Your task to perform on an android device: Open the phone app and click the voicemail tab. Image 0: 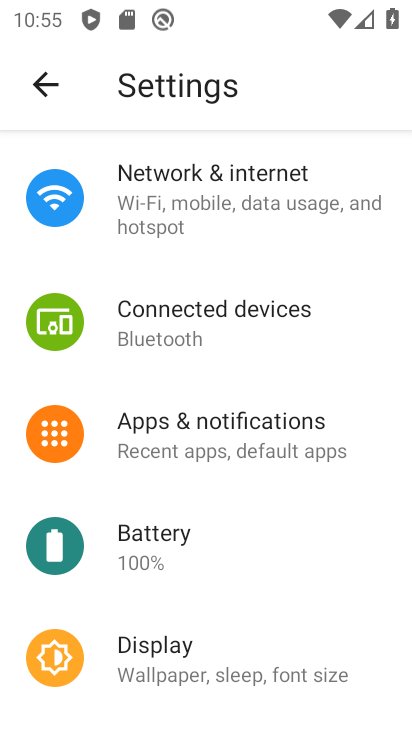
Step 0: press home button
Your task to perform on an android device: Open the phone app and click the voicemail tab. Image 1: 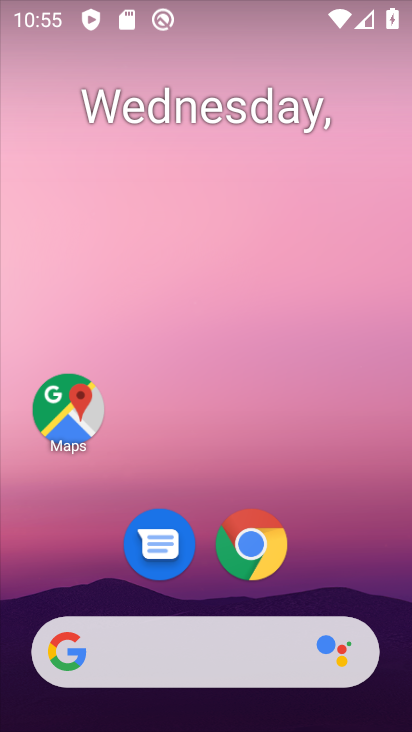
Step 1: drag from (248, 605) to (313, 62)
Your task to perform on an android device: Open the phone app and click the voicemail tab. Image 2: 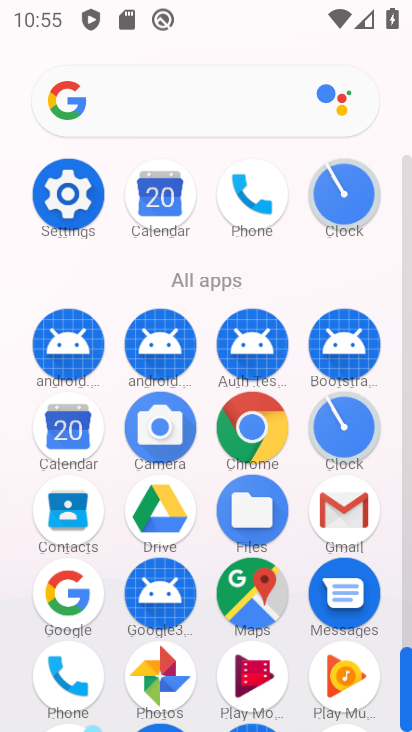
Step 2: click (78, 659)
Your task to perform on an android device: Open the phone app and click the voicemail tab. Image 3: 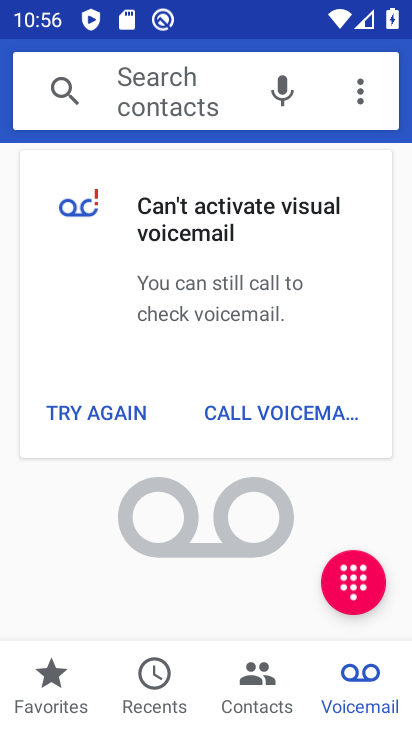
Step 3: click (360, 690)
Your task to perform on an android device: Open the phone app and click the voicemail tab. Image 4: 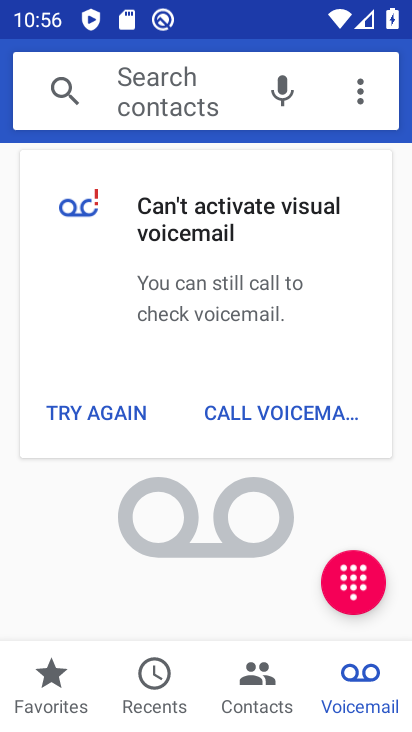
Step 4: task complete